Your task to perform on an android device: change alarm snooze length Image 0: 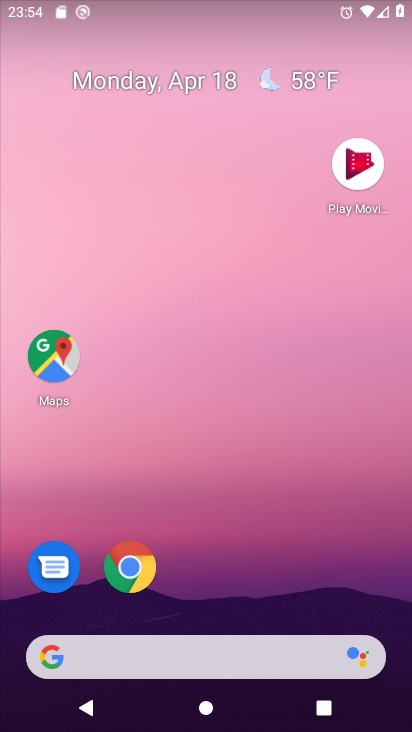
Step 0: click (262, 168)
Your task to perform on an android device: change alarm snooze length Image 1: 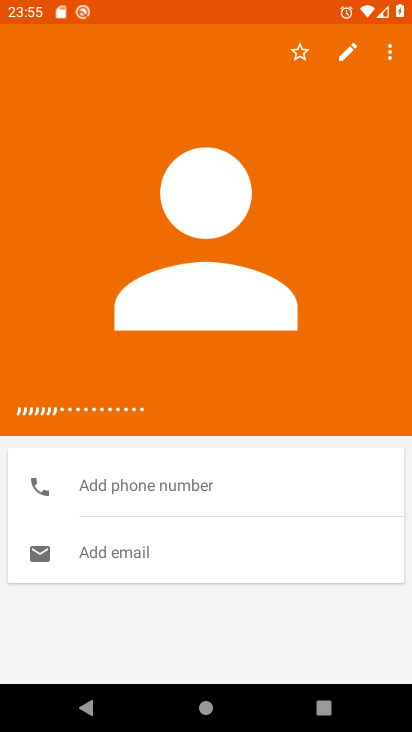
Step 1: drag from (230, 370) to (288, 174)
Your task to perform on an android device: change alarm snooze length Image 2: 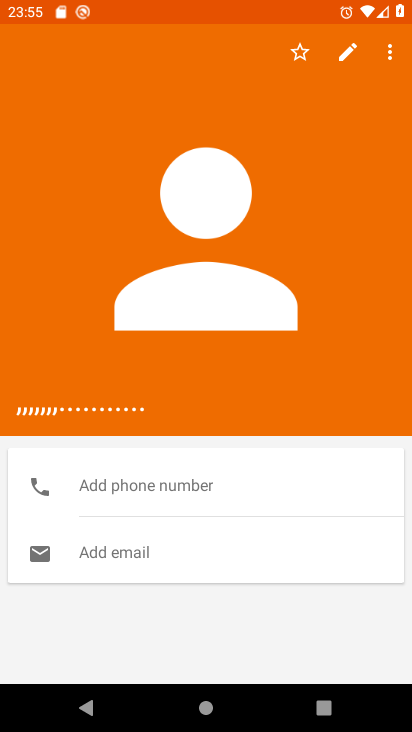
Step 2: drag from (230, 251) to (285, 555)
Your task to perform on an android device: change alarm snooze length Image 3: 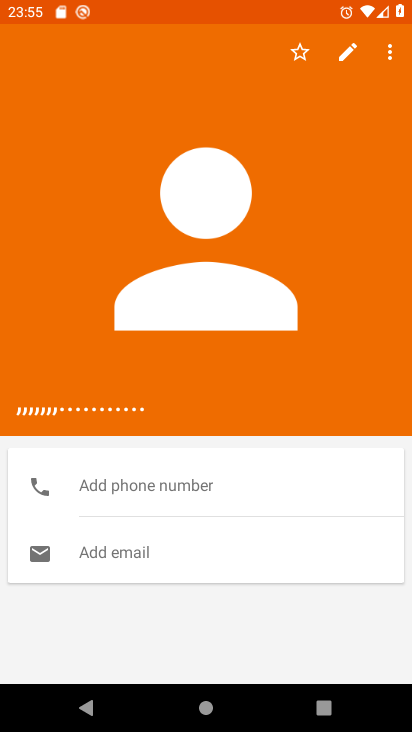
Step 3: press home button
Your task to perform on an android device: change alarm snooze length Image 4: 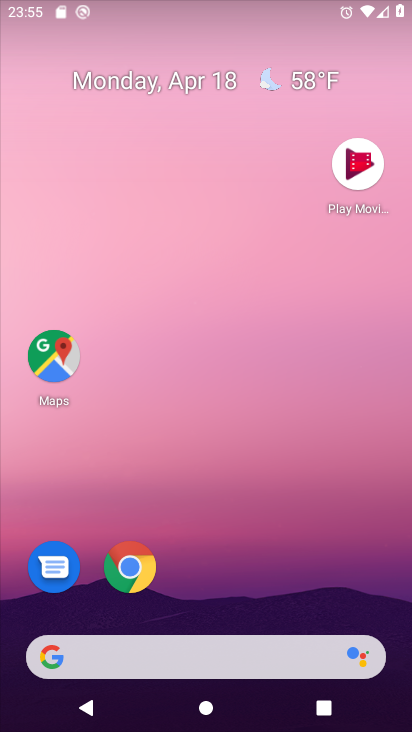
Step 4: drag from (220, 405) to (296, 133)
Your task to perform on an android device: change alarm snooze length Image 5: 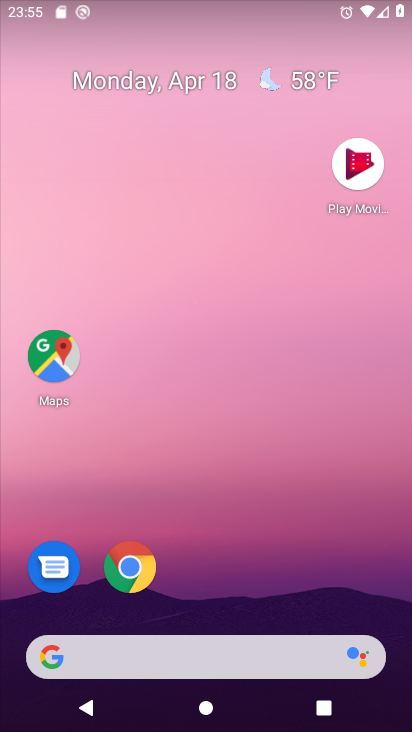
Step 5: drag from (179, 546) to (210, 238)
Your task to perform on an android device: change alarm snooze length Image 6: 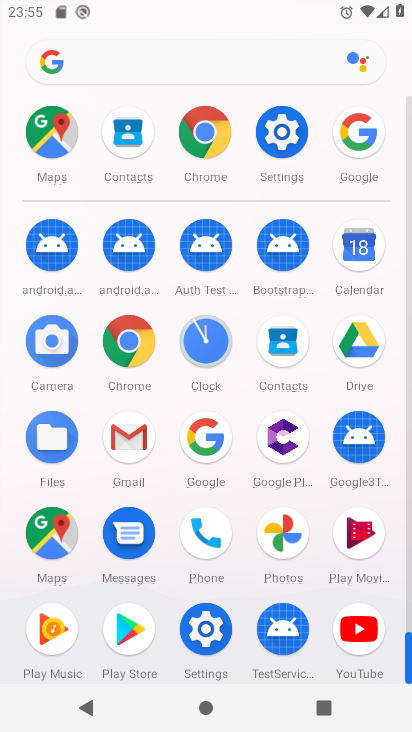
Step 6: drag from (252, 568) to (240, 337)
Your task to perform on an android device: change alarm snooze length Image 7: 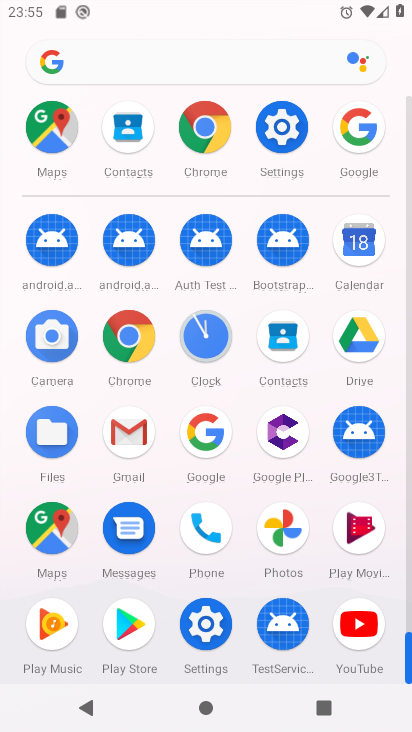
Step 7: drag from (233, 645) to (233, 322)
Your task to perform on an android device: change alarm snooze length Image 8: 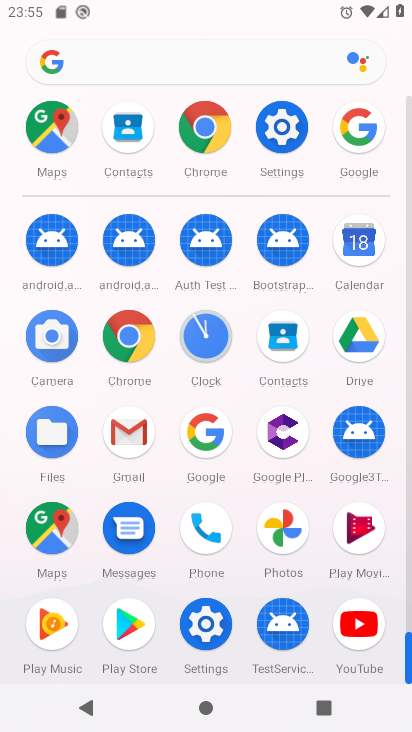
Step 8: click (198, 343)
Your task to perform on an android device: change alarm snooze length Image 9: 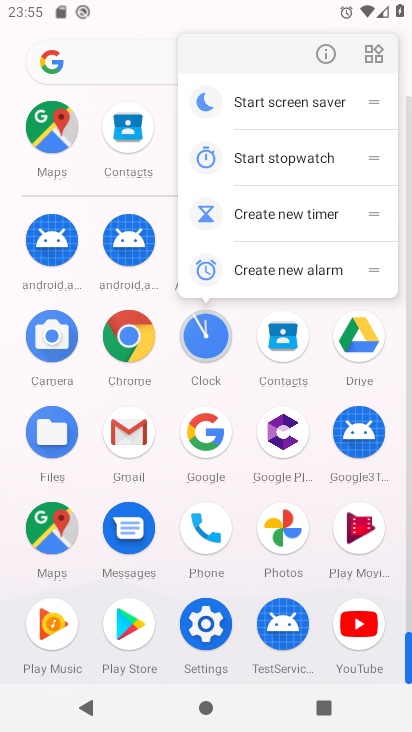
Step 9: click (331, 46)
Your task to perform on an android device: change alarm snooze length Image 10: 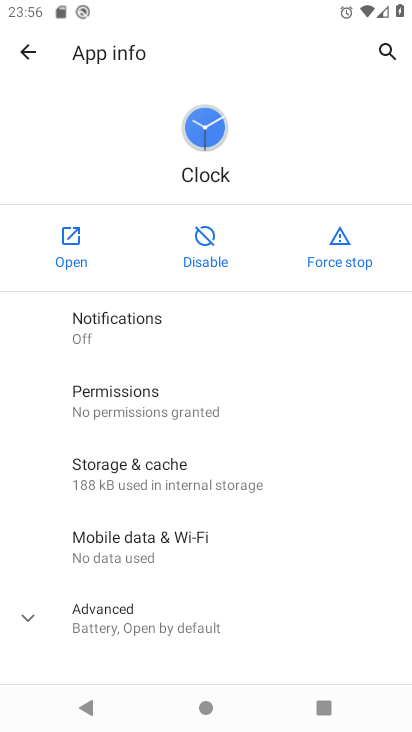
Step 10: click (65, 222)
Your task to perform on an android device: change alarm snooze length Image 11: 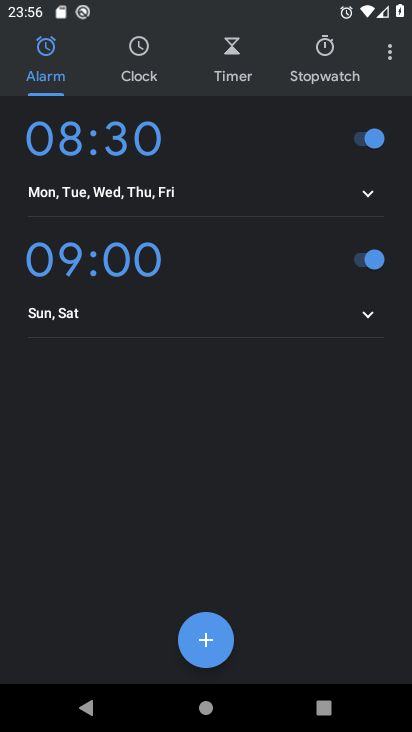
Step 11: click (386, 61)
Your task to perform on an android device: change alarm snooze length Image 12: 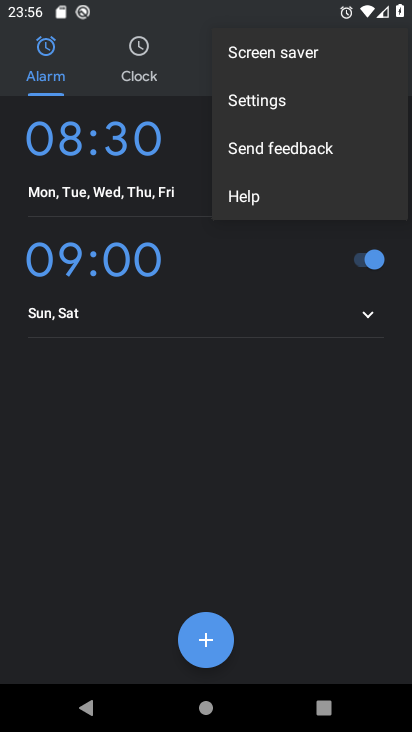
Step 12: click (298, 107)
Your task to perform on an android device: change alarm snooze length Image 13: 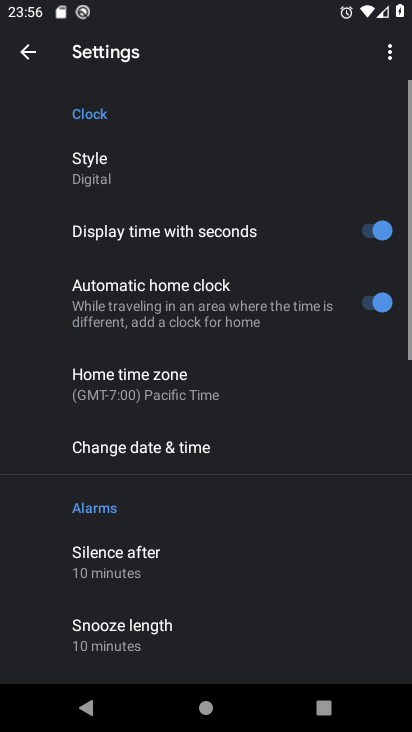
Step 13: drag from (195, 593) to (246, 141)
Your task to perform on an android device: change alarm snooze length Image 14: 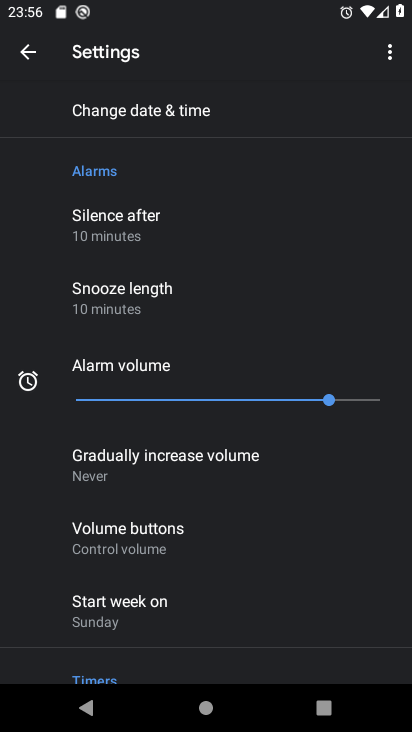
Step 14: click (191, 302)
Your task to perform on an android device: change alarm snooze length Image 15: 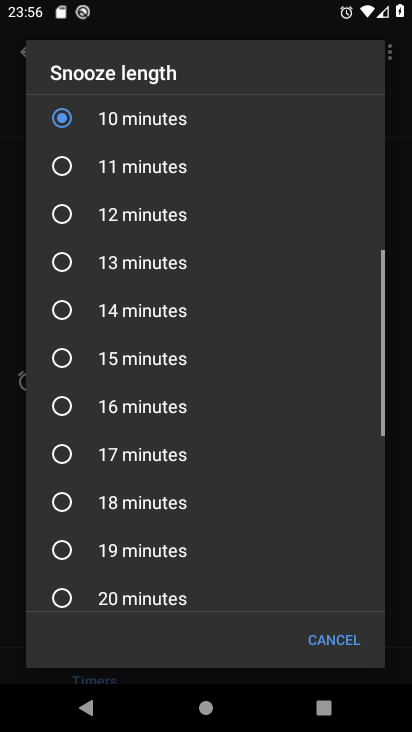
Step 15: click (147, 310)
Your task to perform on an android device: change alarm snooze length Image 16: 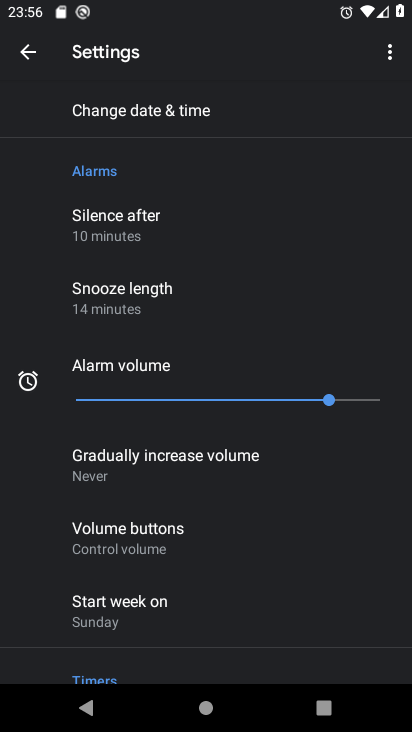
Step 16: task complete